Your task to perform on an android device: Do I have any events tomorrow? Image 0: 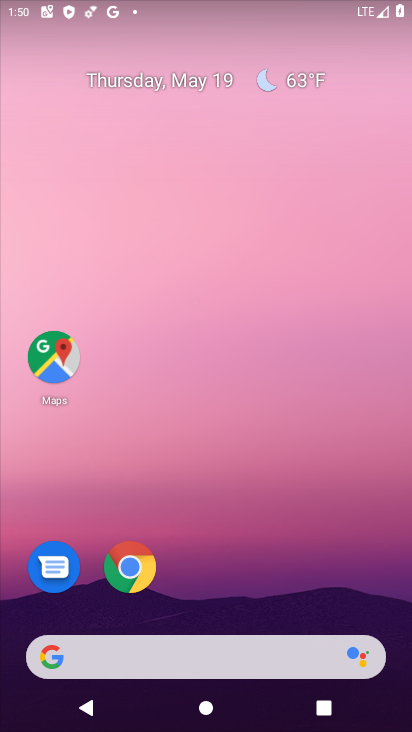
Step 0: drag from (280, 507) to (188, 99)
Your task to perform on an android device: Do I have any events tomorrow? Image 1: 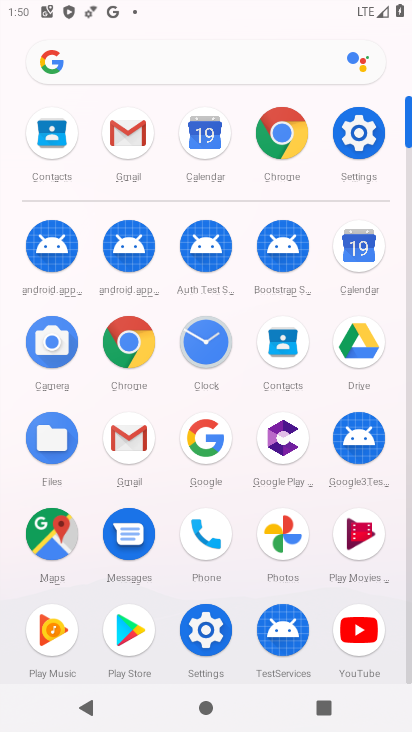
Step 1: click (195, 150)
Your task to perform on an android device: Do I have any events tomorrow? Image 2: 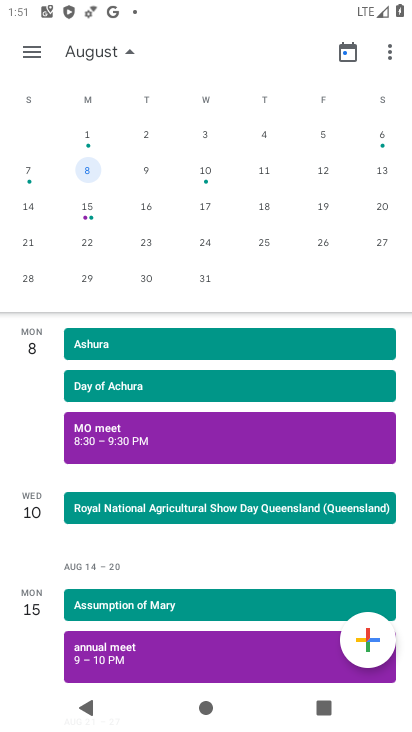
Step 2: click (137, 174)
Your task to perform on an android device: Do I have any events tomorrow? Image 3: 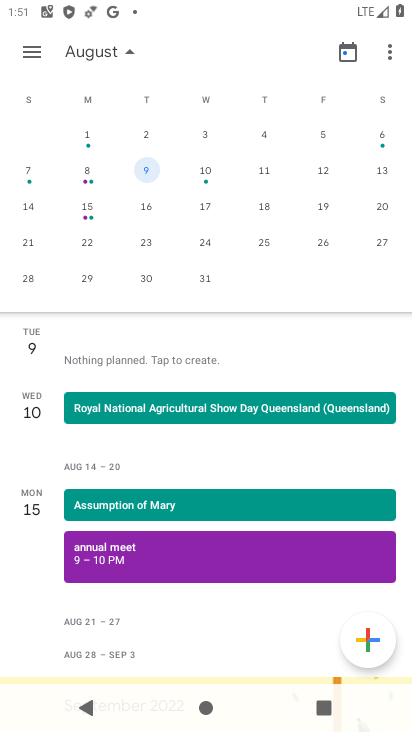
Step 3: task complete